Your task to perform on an android device: toggle improve location accuracy Image 0: 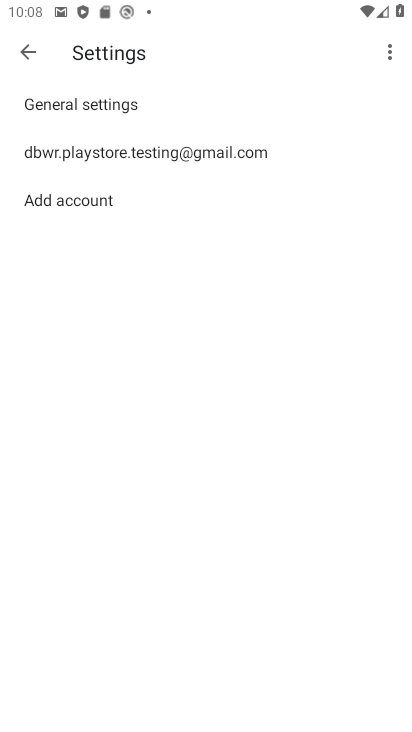
Step 0: press home button
Your task to perform on an android device: toggle improve location accuracy Image 1: 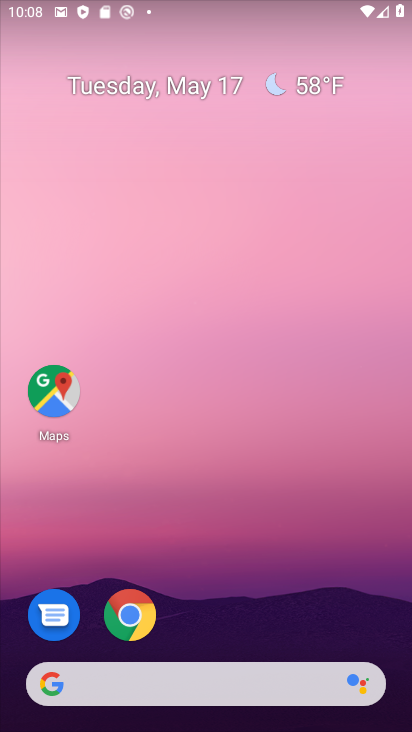
Step 1: drag from (248, 618) to (251, 195)
Your task to perform on an android device: toggle improve location accuracy Image 2: 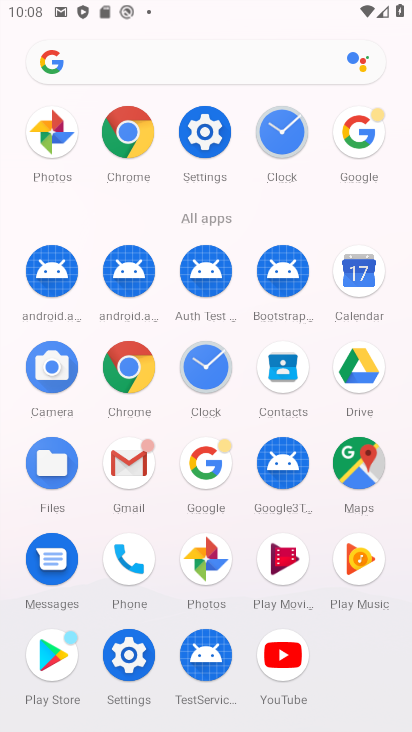
Step 2: click (215, 151)
Your task to perform on an android device: toggle improve location accuracy Image 3: 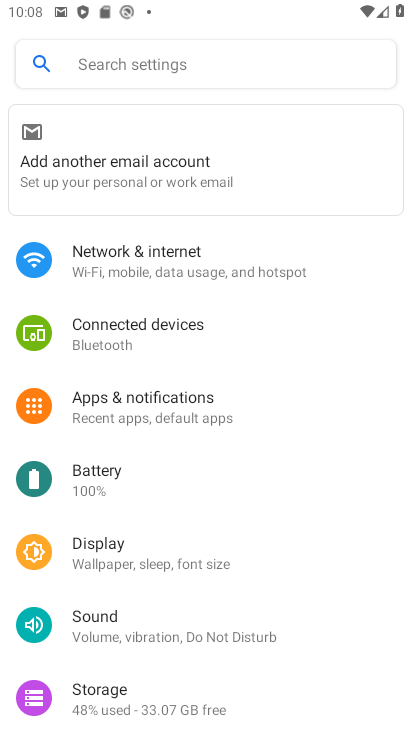
Step 3: drag from (217, 619) to (227, 289)
Your task to perform on an android device: toggle improve location accuracy Image 4: 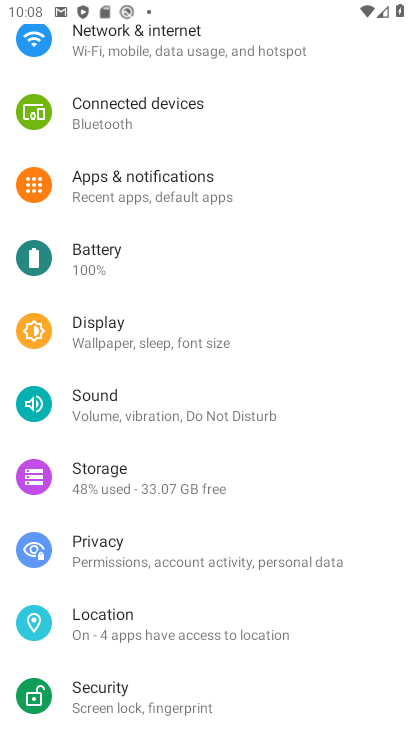
Step 4: click (165, 615)
Your task to perform on an android device: toggle improve location accuracy Image 5: 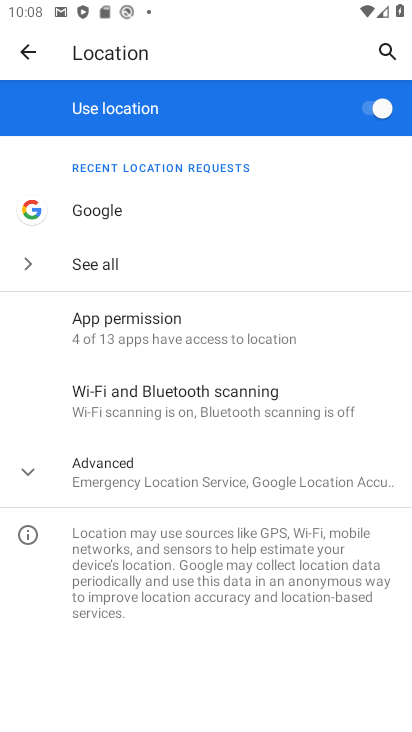
Step 5: click (184, 470)
Your task to perform on an android device: toggle improve location accuracy Image 6: 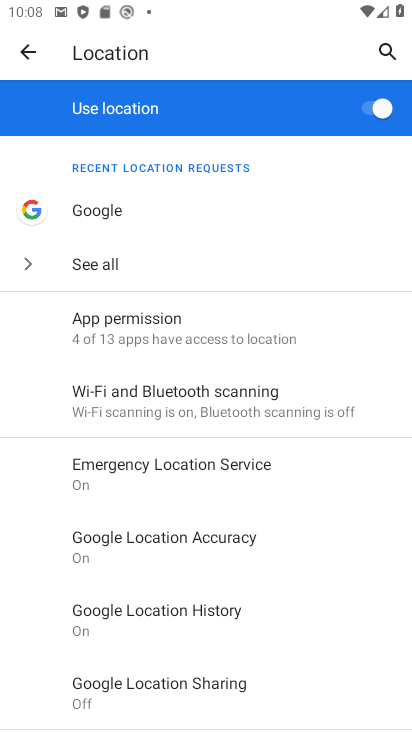
Step 6: click (243, 544)
Your task to perform on an android device: toggle improve location accuracy Image 7: 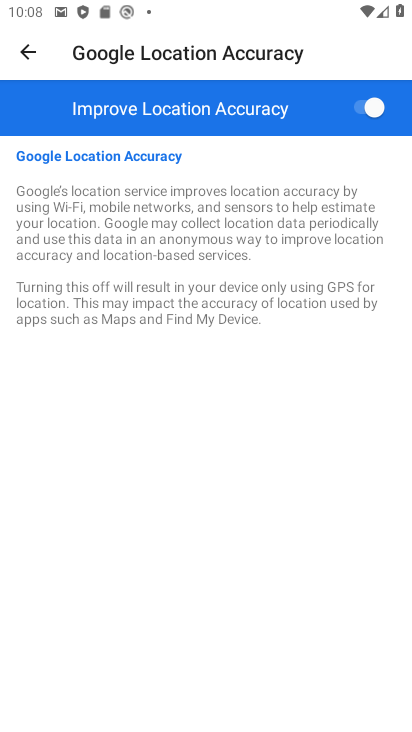
Step 7: click (358, 106)
Your task to perform on an android device: toggle improve location accuracy Image 8: 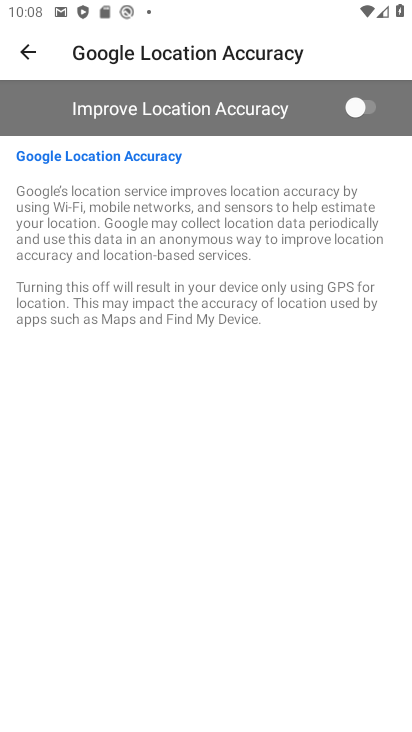
Step 8: task complete